Your task to perform on an android device: delete location history Image 0: 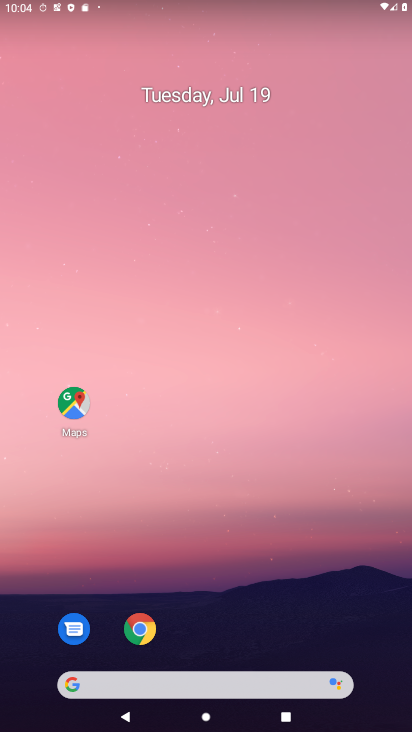
Step 0: drag from (208, 641) to (232, 5)
Your task to perform on an android device: delete location history Image 1: 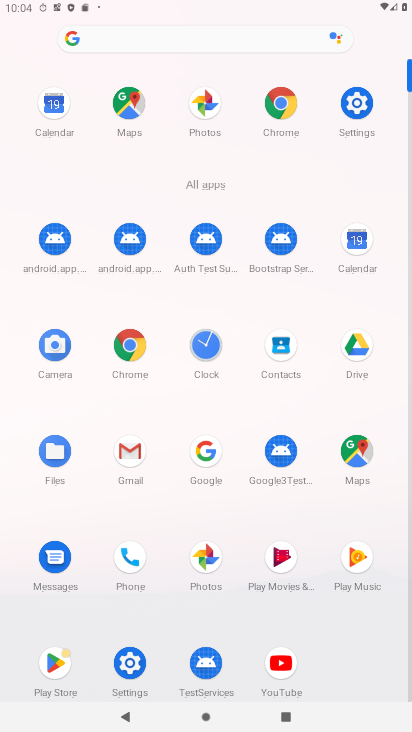
Step 1: click (364, 464)
Your task to perform on an android device: delete location history Image 2: 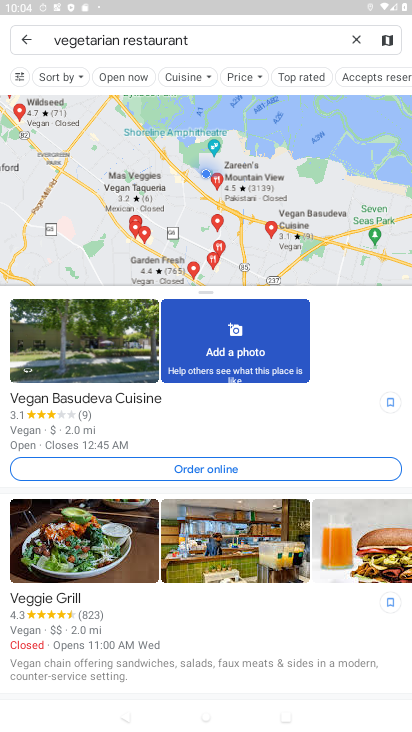
Step 2: click (23, 37)
Your task to perform on an android device: delete location history Image 3: 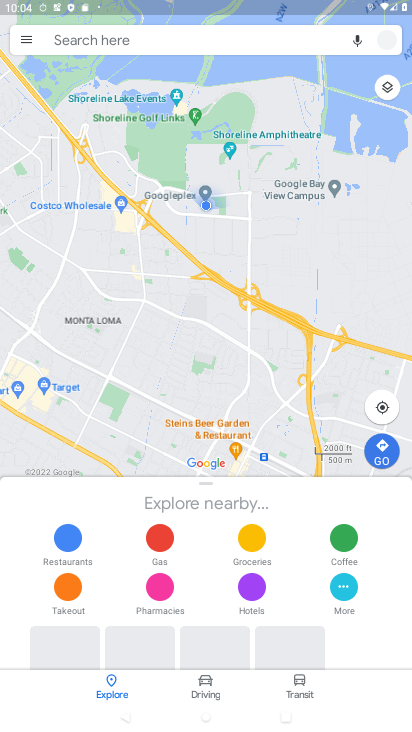
Step 3: click (23, 37)
Your task to perform on an android device: delete location history Image 4: 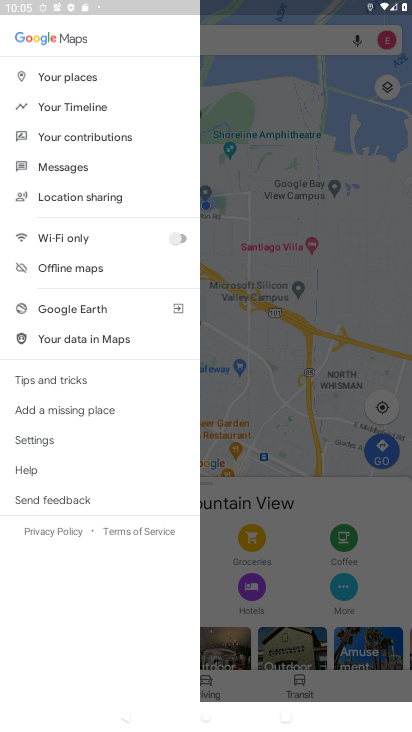
Step 4: click (91, 107)
Your task to perform on an android device: delete location history Image 5: 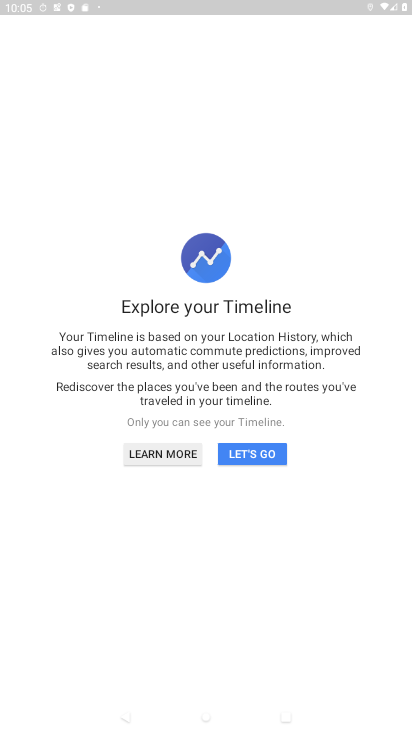
Step 5: click (253, 451)
Your task to perform on an android device: delete location history Image 6: 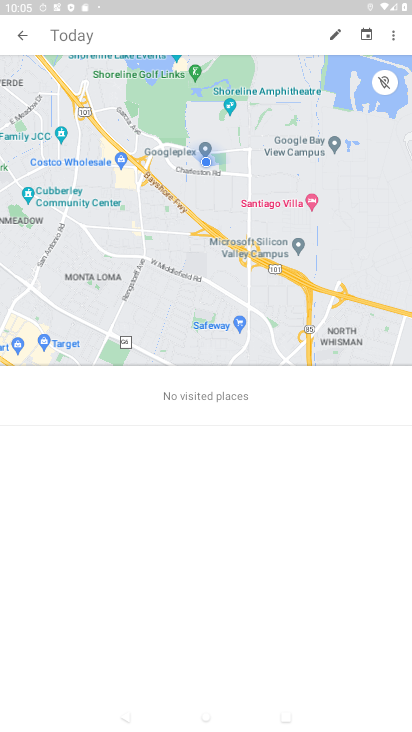
Step 6: click (390, 36)
Your task to perform on an android device: delete location history Image 7: 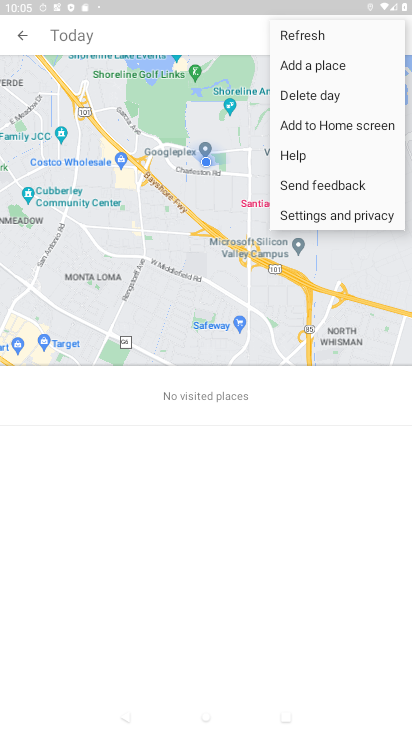
Step 7: click (319, 212)
Your task to perform on an android device: delete location history Image 8: 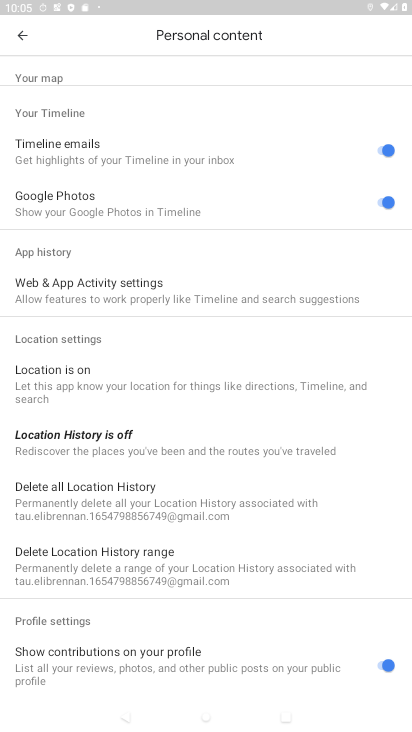
Step 8: click (99, 505)
Your task to perform on an android device: delete location history Image 9: 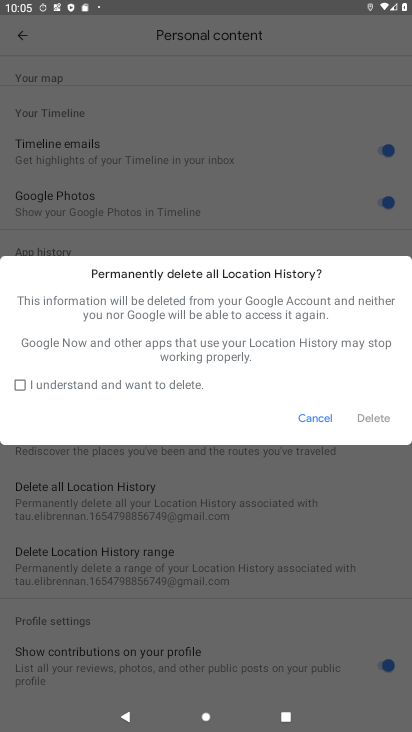
Step 9: click (64, 386)
Your task to perform on an android device: delete location history Image 10: 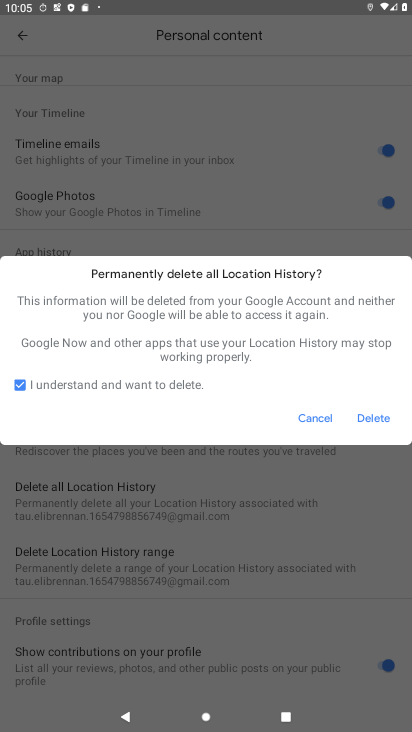
Step 10: click (367, 417)
Your task to perform on an android device: delete location history Image 11: 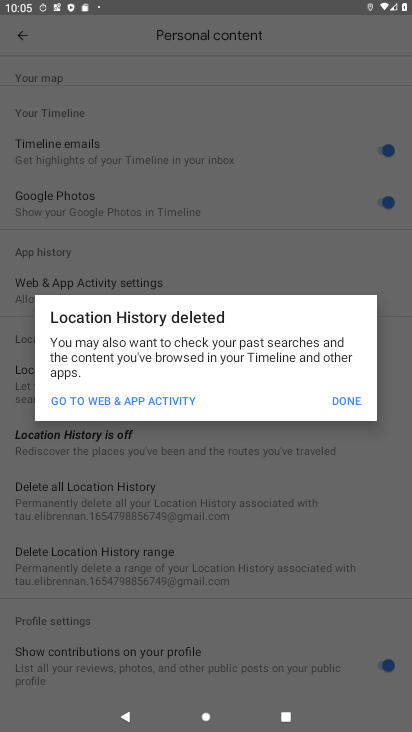
Step 11: click (348, 396)
Your task to perform on an android device: delete location history Image 12: 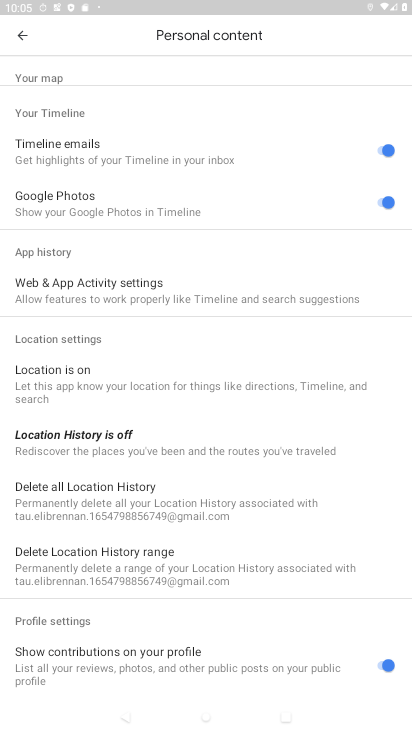
Step 12: task complete